Your task to perform on an android device: move a message to another label in the gmail app Image 0: 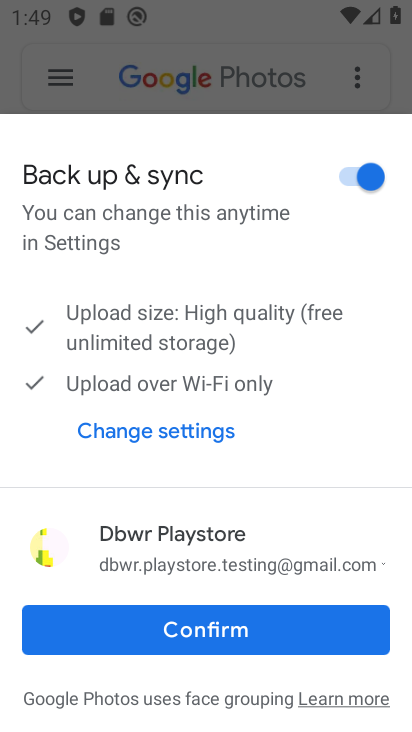
Step 0: press home button
Your task to perform on an android device: move a message to another label in the gmail app Image 1: 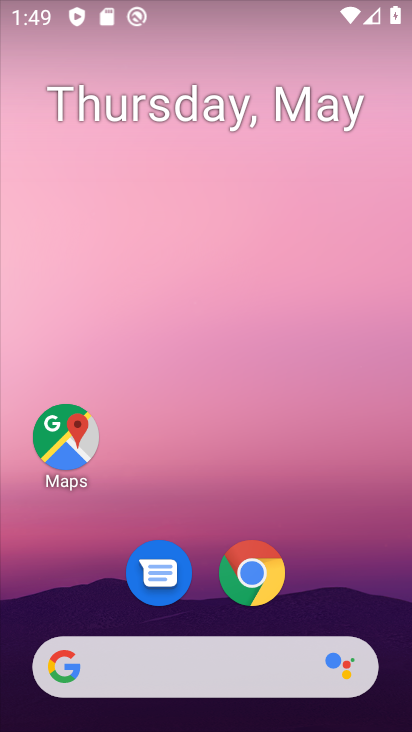
Step 1: drag from (81, 608) to (189, 201)
Your task to perform on an android device: move a message to another label in the gmail app Image 2: 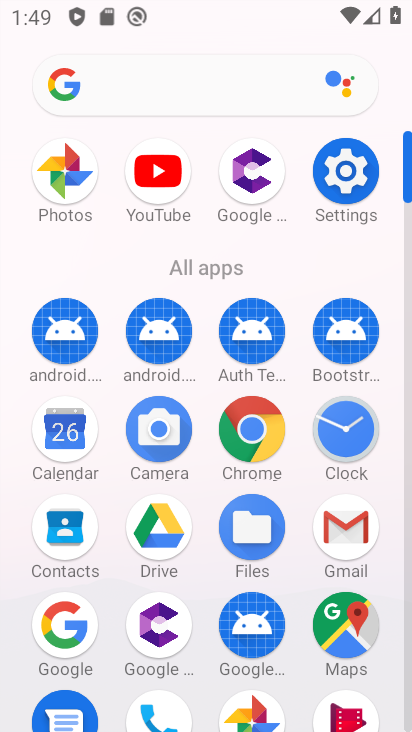
Step 2: drag from (140, 679) to (247, 434)
Your task to perform on an android device: move a message to another label in the gmail app Image 3: 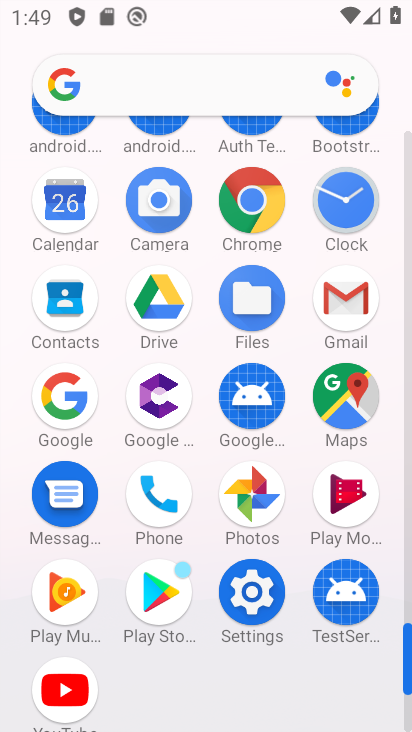
Step 3: click (343, 331)
Your task to perform on an android device: move a message to another label in the gmail app Image 4: 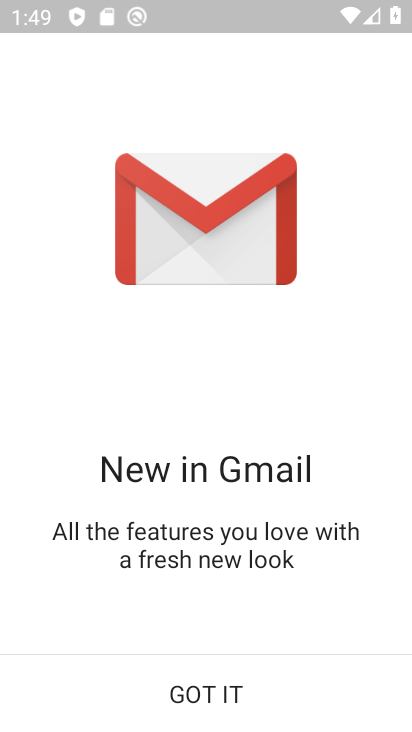
Step 4: click (237, 698)
Your task to perform on an android device: move a message to another label in the gmail app Image 5: 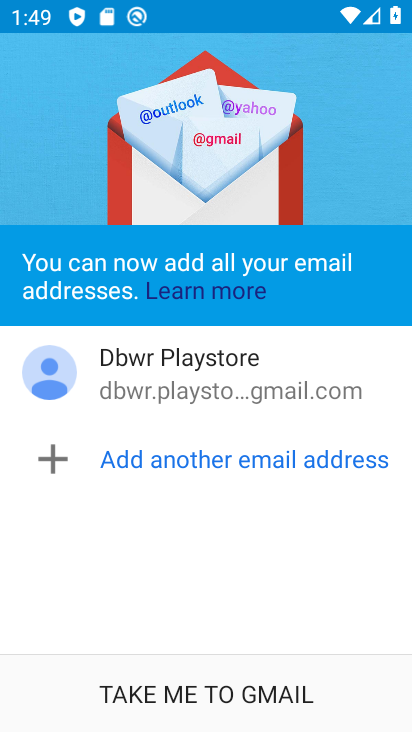
Step 5: click (237, 698)
Your task to perform on an android device: move a message to another label in the gmail app Image 6: 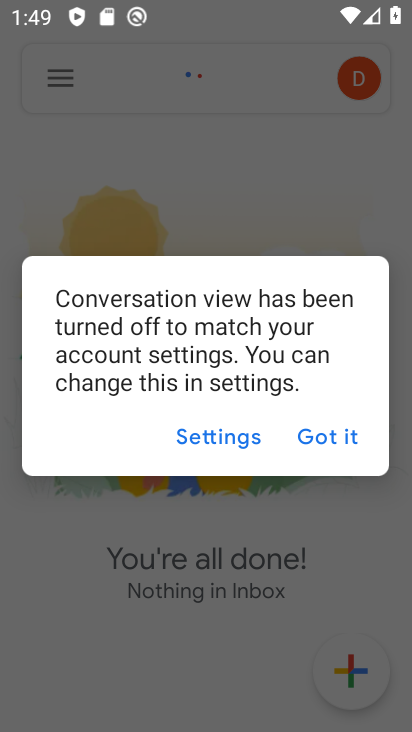
Step 6: click (340, 434)
Your task to perform on an android device: move a message to another label in the gmail app Image 7: 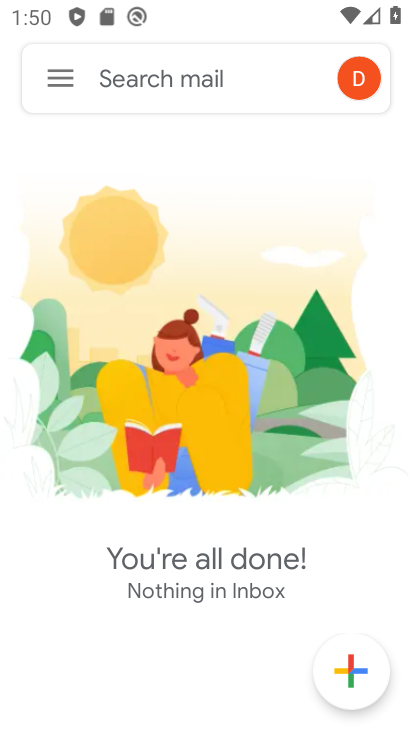
Step 7: click (57, 77)
Your task to perform on an android device: move a message to another label in the gmail app Image 8: 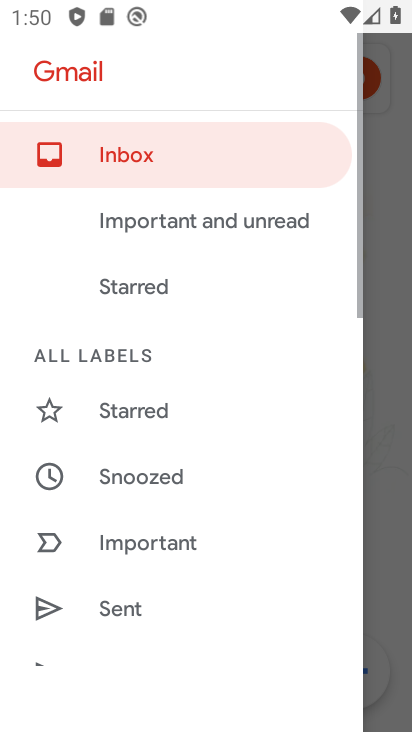
Step 8: drag from (113, 611) to (285, 149)
Your task to perform on an android device: move a message to another label in the gmail app Image 9: 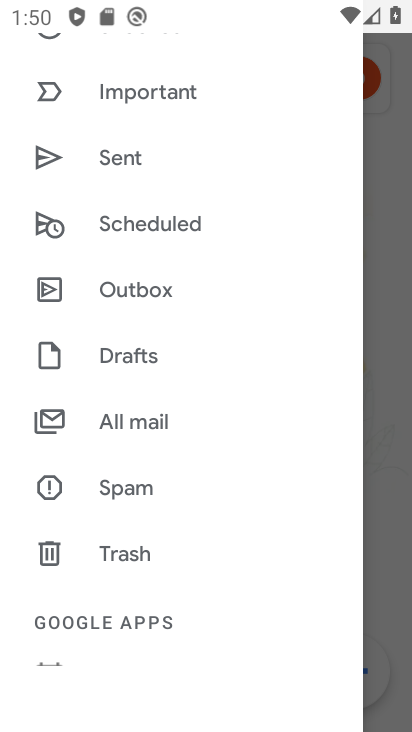
Step 9: click (189, 417)
Your task to perform on an android device: move a message to another label in the gmail app Image 10: 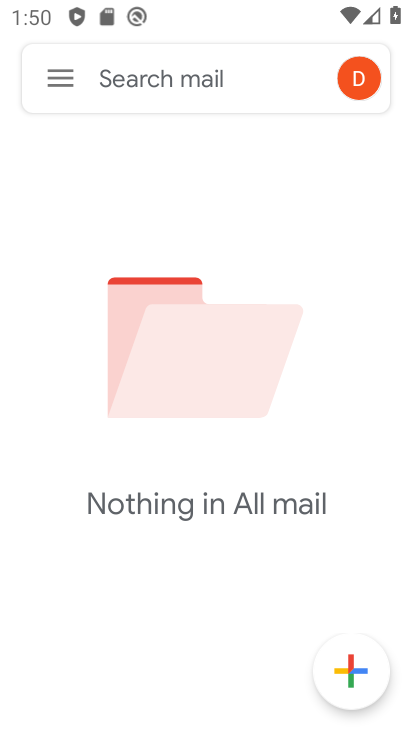
Step 10: task complete